Your task to perform on an android device: Open the stopwatch Image 0: 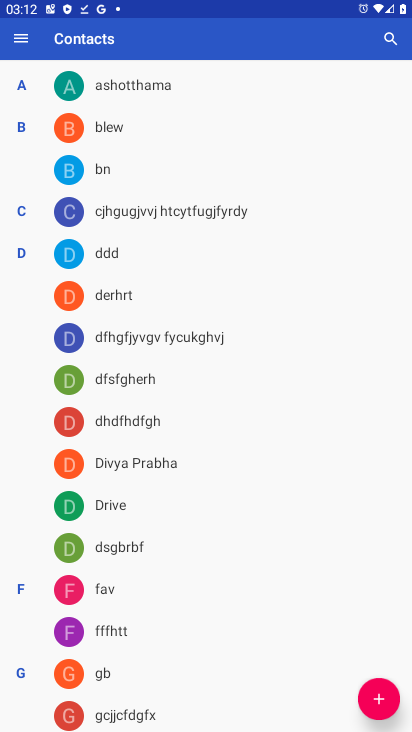
Step 0: press home button
Your task to perform on an android device: Open the stopwatch Image 1: 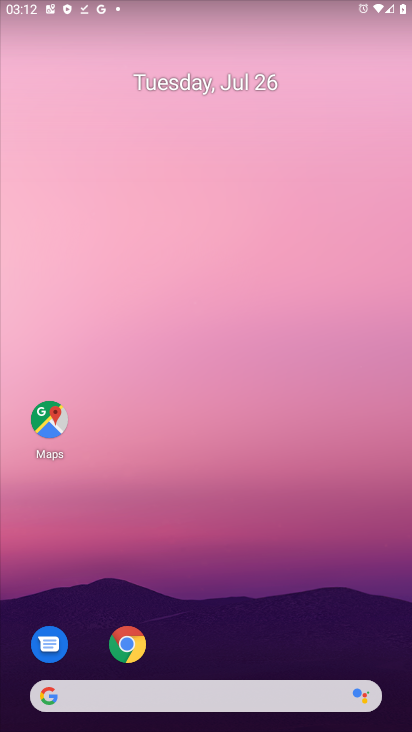
Step 1: drag from (178, 675) to (161, 126)
Your task to perform on an android device: Open the stopwatch Image 2: 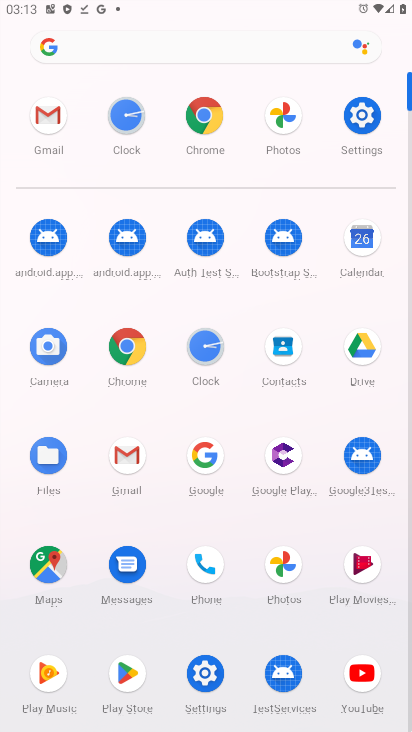
Step 2: click (205, 360)
Your task to perform on an android device: Open the stopwatch Image 3: 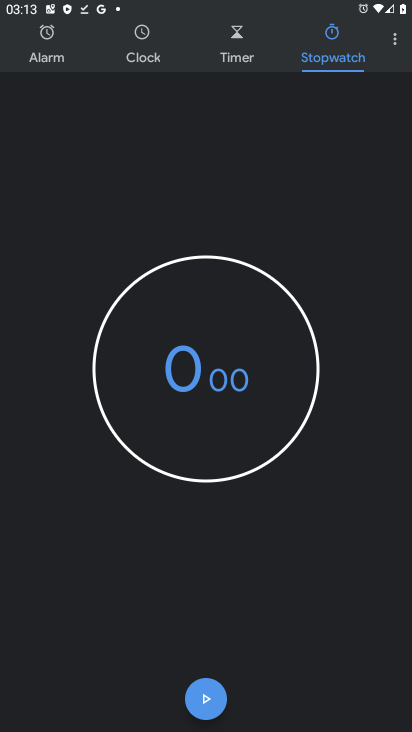
Step 3: task complete